Your task to perform on an android device: turn off priority inbox in the gmail app Image 0: 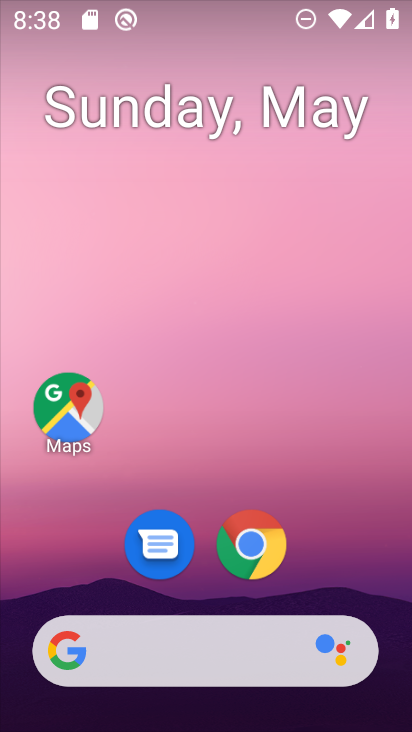
Step 0: drag from (314, 551) to (230, 19)
Your task to perform on an android device: turn off priority inbox in the gmail app Image 1: 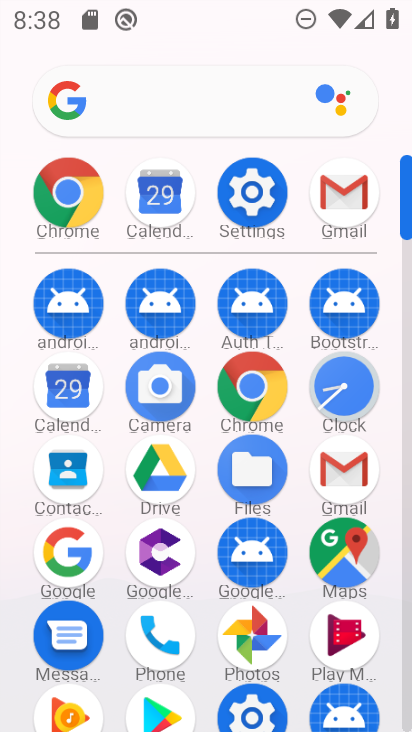
Step 1: drag from (10, 610) to (12, 268)
Your task to perform on an android device: turn off priority inbox in the gmail app Image 2: 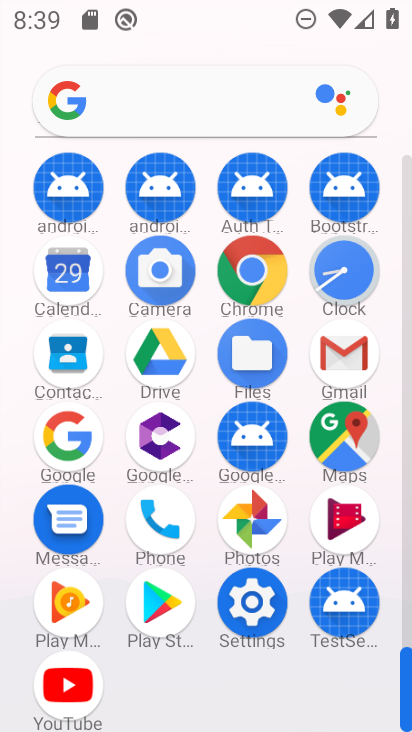
Step 2: drag from (12, 596) to (8, 290)
Your task to perform on an android device: turn off priority inbox in the gmail app Image 3: 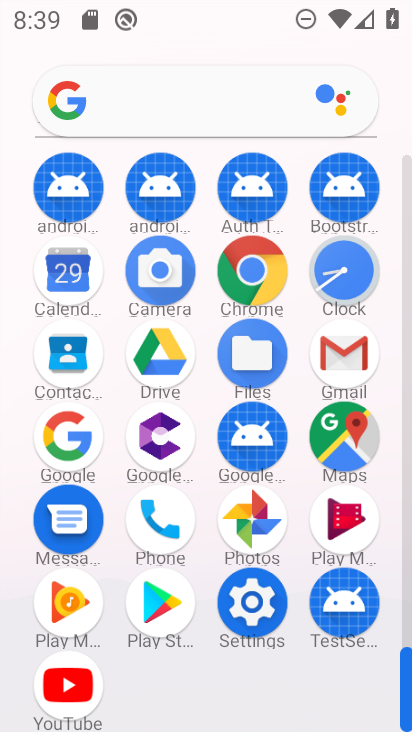
Step 3: click (343, 349)
Your task to perform on an android device: turn off priority inbox in the gmail app Image 4: 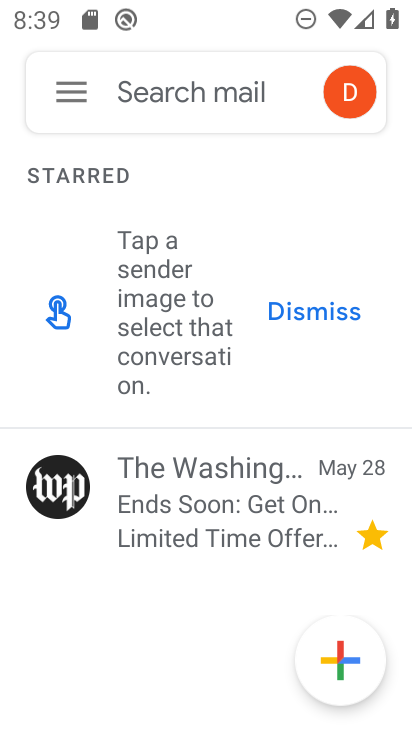
Step 4: click (69, 83)
Your task to perform on an android device: turn off priority inbox in the gmail app Image 5: 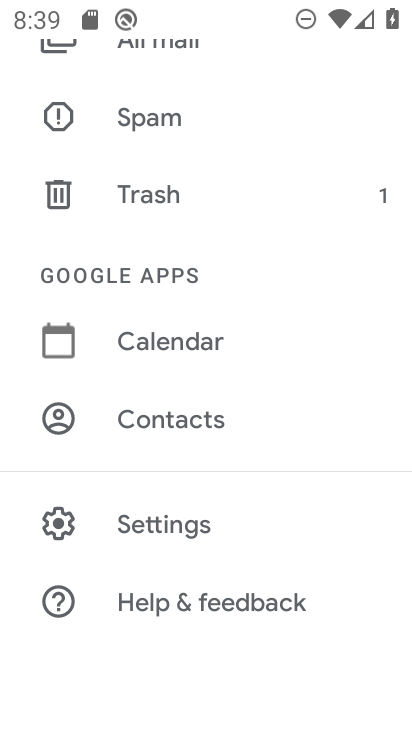
Step 5: click (171, 511)
Your task to perform on an android device: turn off priority inbox in the gmail app Image 6: 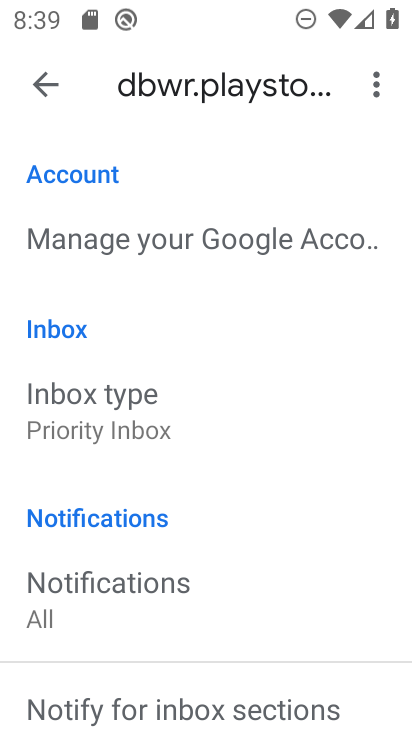
Step 6: click (169, 395)
Your task to perform on an android device: turn off priority inbox in the gmail app Image 7: 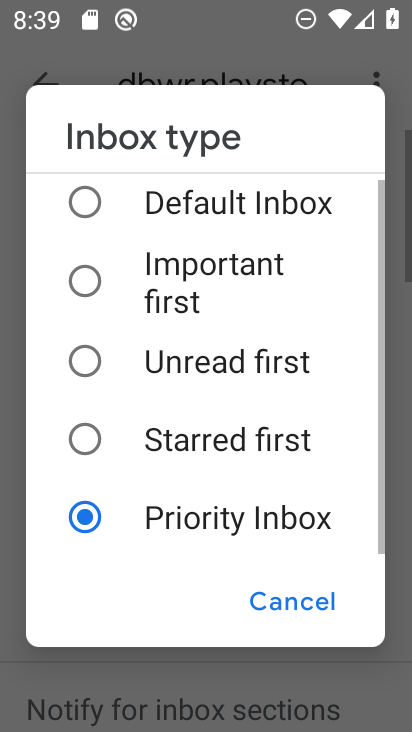
Step 7: click (178, 198)
Your task to perform on an android device: turn off priority inbox in the gmail app Image 8: 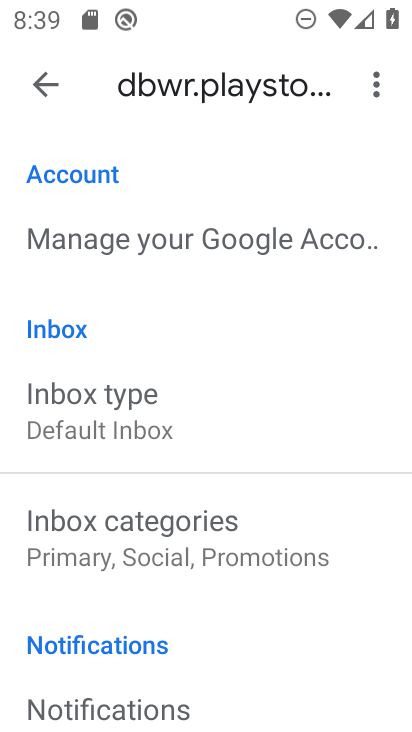
Step 8: task complete